Your task to perform on an android device: What's on my calendar today? Image 0: 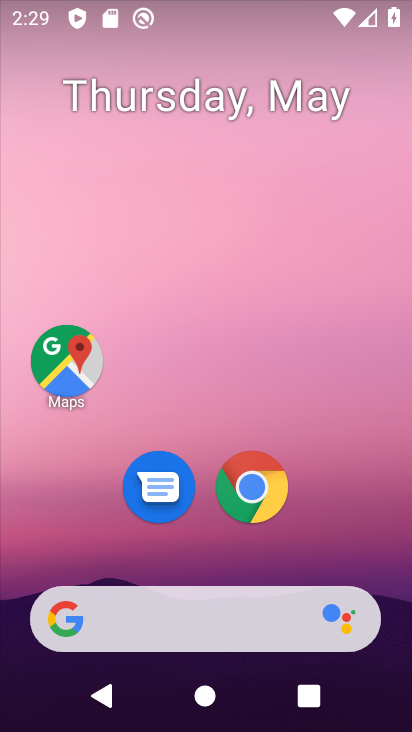
Step 0: drag from (224, 529) to (297, 23)
Your task to perform on an android device: What's on my calendar today? Image 1: 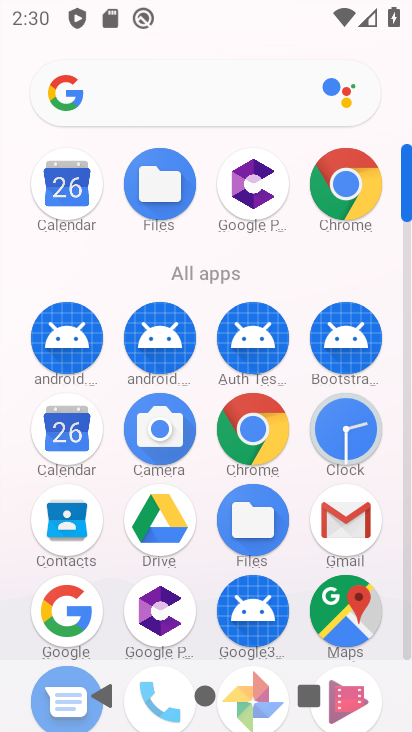
Step 1: click (89, 427)
Your task to perform on an android device: What's on my calendar today? Image 2: 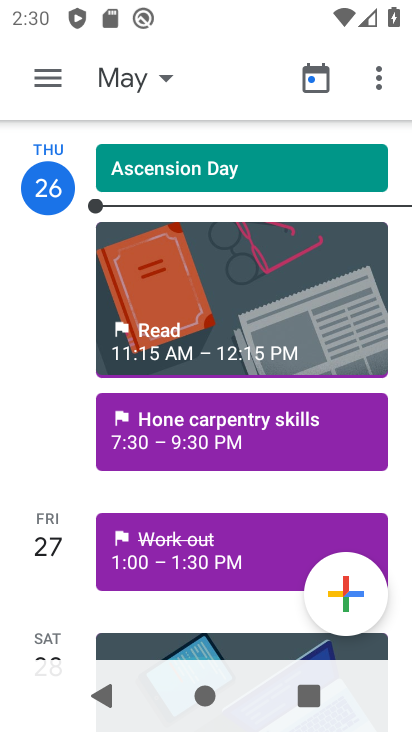
Step 2: click (162, 76)
Your task to perform on an android device: What's on my calendar today? Image 3: 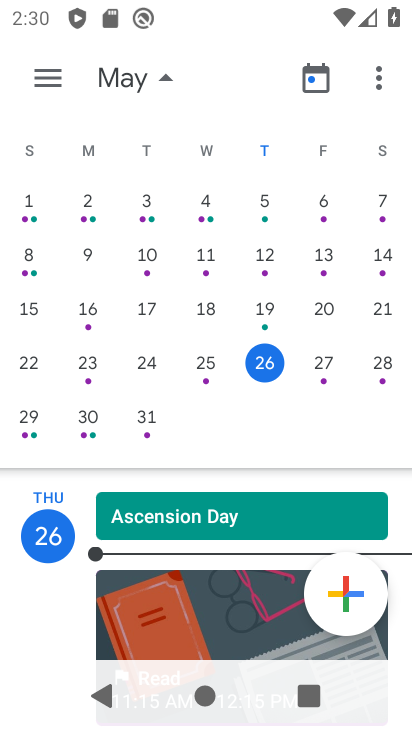
Step 3: task complete